Your task to perform on an android device: find snoozed emails in the gmail app Image 0: 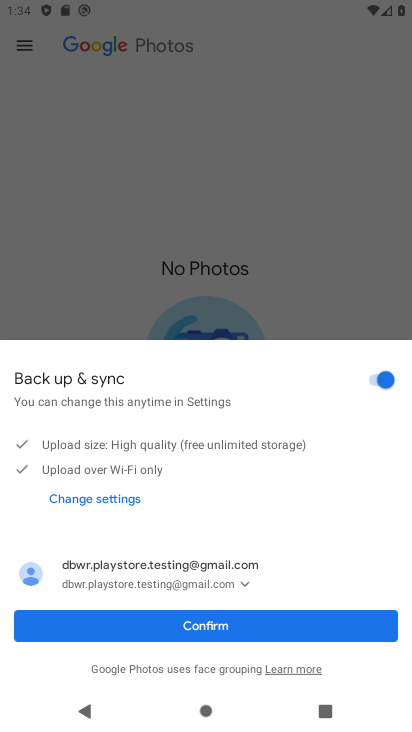
Step 0: press home button
Your task to perform on an android device: find snoozed emails in the gmail app Image 1: 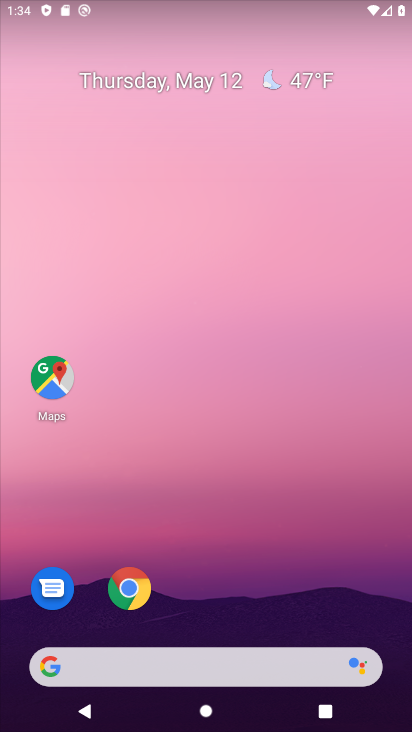
Step 1: drag from (399, 664) to (325, 138)
Your task to perform on an android device: find snoozed emails in the gmail app Image 2: 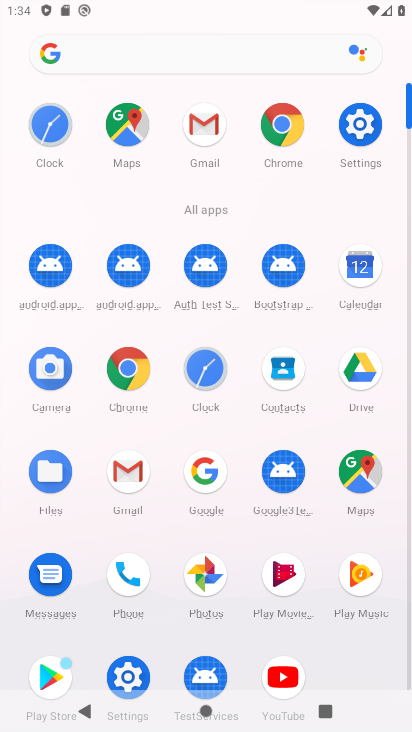
Step 2: click (131, 469)
Your task to perform on an android device: find snoozed emails in the gmail app Image 3: 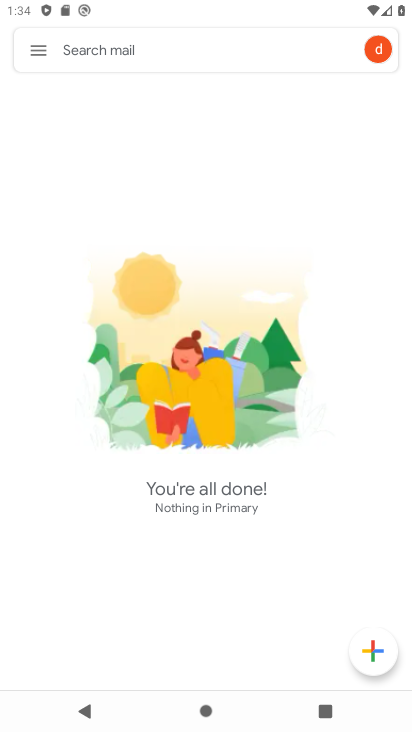
Step 3: click (35, 48)
Your task to perform on an android device: find snoozed emails in the gmail app Image 4: 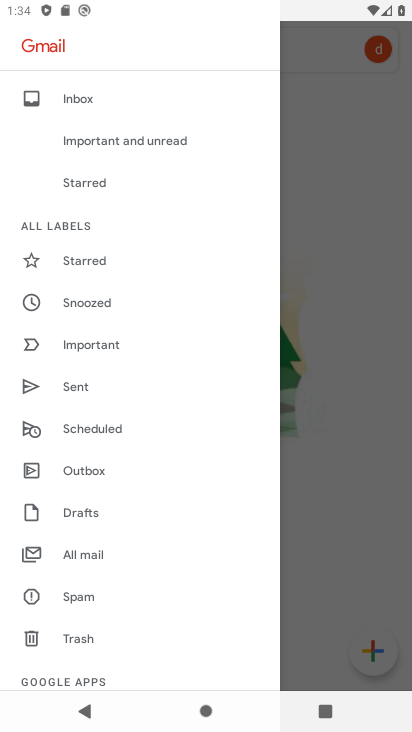
Step 4: click (72, 303)
Your task to perform on an android device: find snoozed emails in the gmail app Image 5: 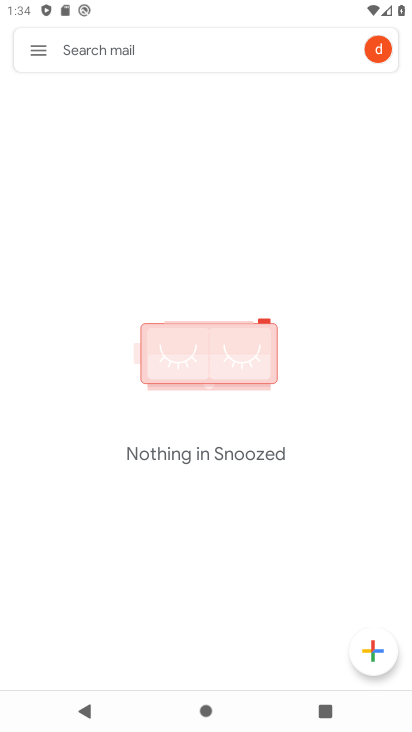
Step 5: task complete